Your task to perform on an android device: turn pop-ups on in chrome Image 0: 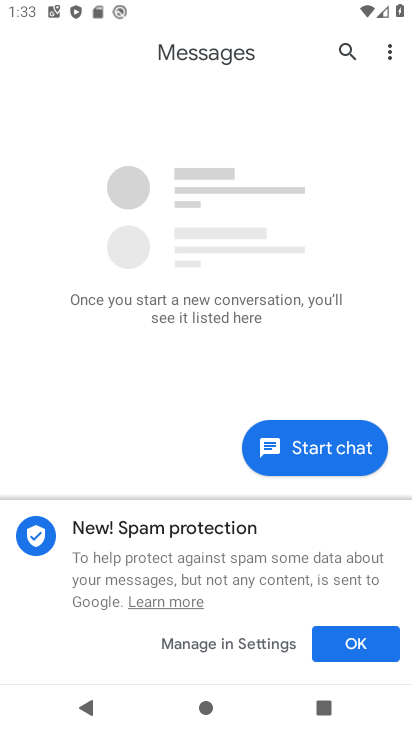
Step 0: press home button
Your task to perform on an android device: turn pop-ups on in chrome Image 1: 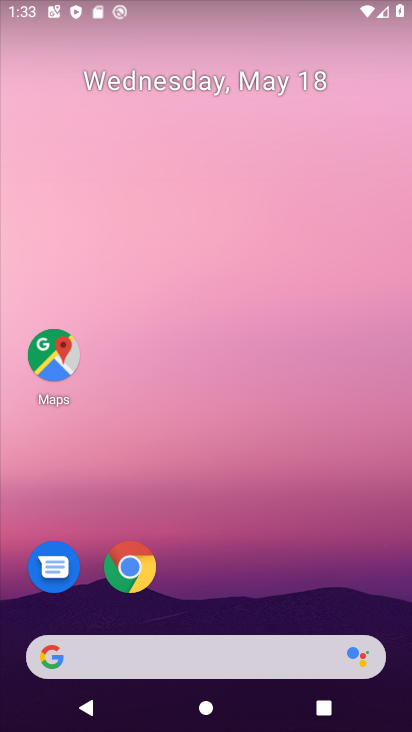
Step 1: click (149, 579)
Your task to perform on an android device: turn pop-ups on in chrome Image 2: 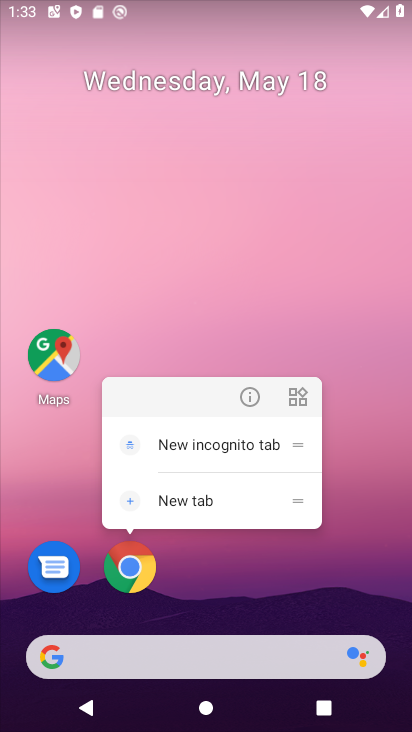
Step 2: click (139, 569)
Your task to perform on an android device: turn pop-ups on in chrome Image 3: 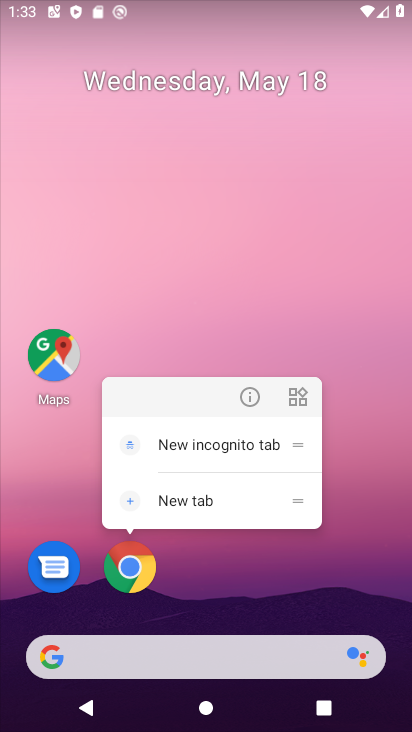
Step 3: click (133, 566)
Your task to perform on an android device: turn pop-ups on in chrome Image 4: 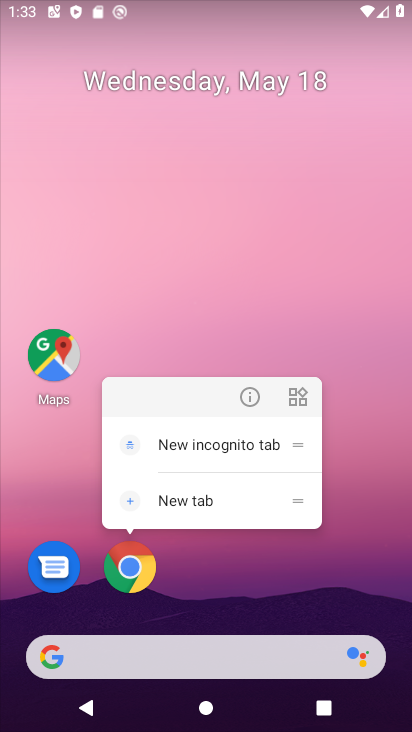
Step 4: click (127, 574)
Your task to perform on an android device: turn pop-ups on in chrome Image 5: 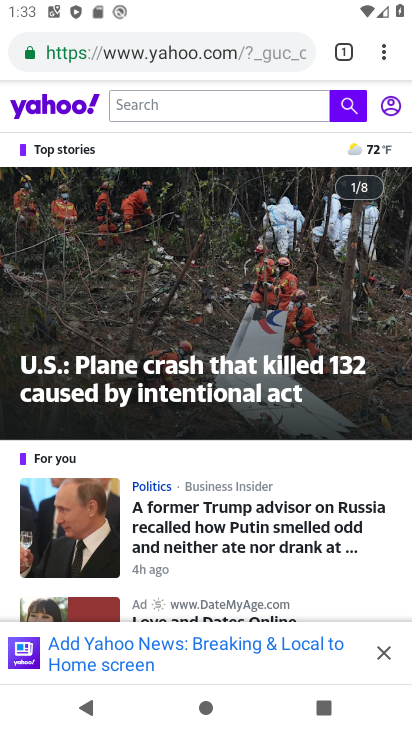
Step 5: drag from (388, 53) to (280, 608)
Your task to perform on an android device: turn pop-ups on in chrome Image 6: 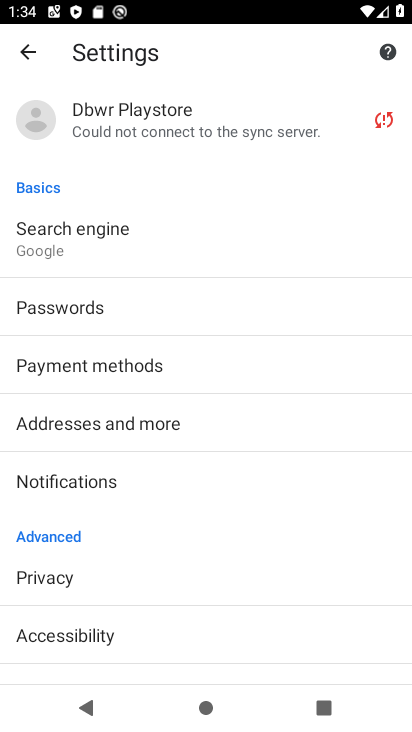
Step 6: drag from (202, 576) to (208, 210)
Your task to perform on an android device: turn pop-ups on in chrome Image 7: 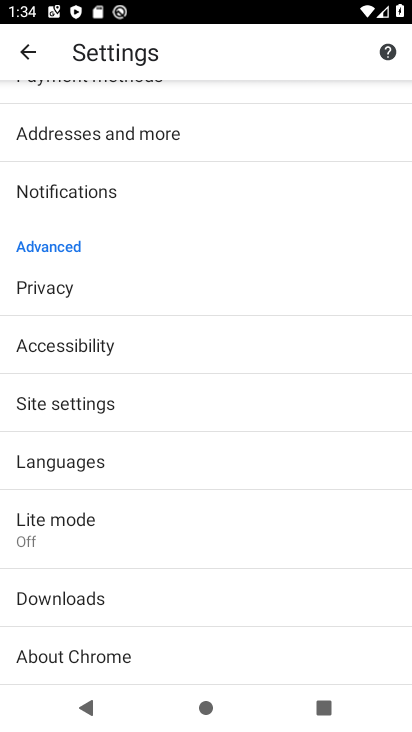
Step 7: click (110, 405)
Your task to perform on an android device: turn pop-ups on in chrome Image 8: 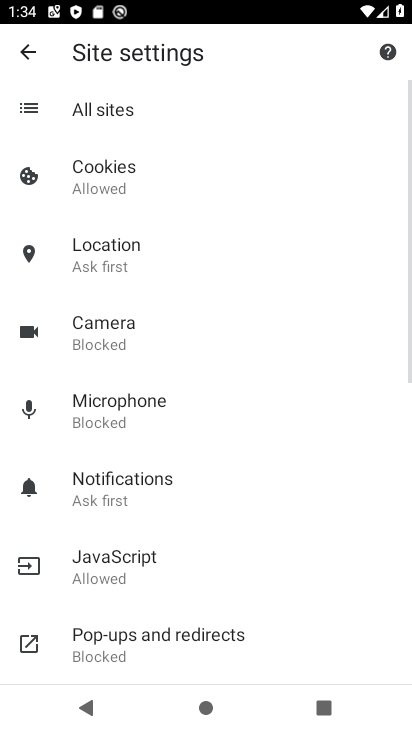
Step 8: drag from (209, 596) to (229, 214)
Your task to perform on an android device: turn pop-ups on in chrome Image 9: 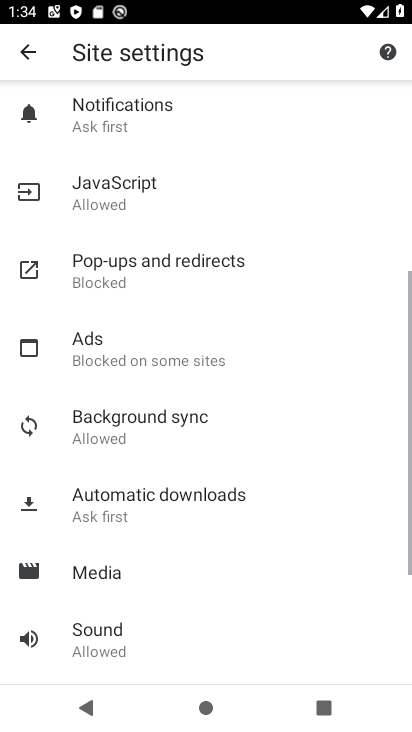
Step 9: click (172, 279)
Your task to perform on an android device: turn pop-ups on in chrome Image 10: 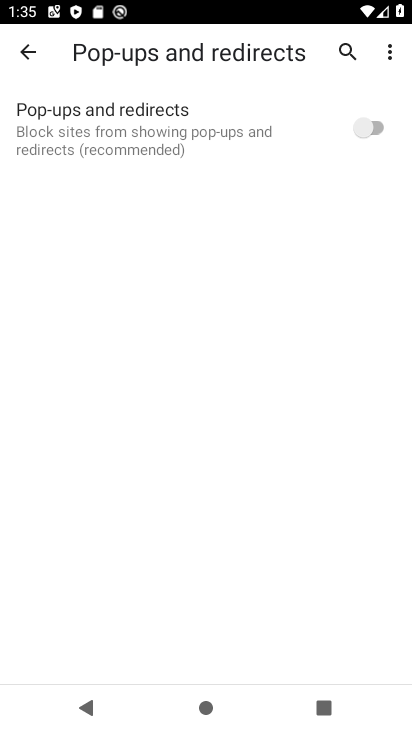
Step 10: click (359, 119)
Your task to perform on an android device: turn pop-ups on in chrome Image 11: 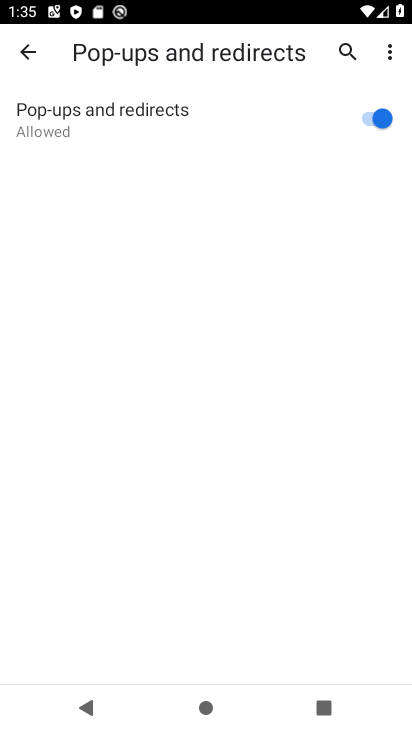
Step 11: task complete